Your task to perform on an android device: move an email to a new category in the gmail app Image 0: 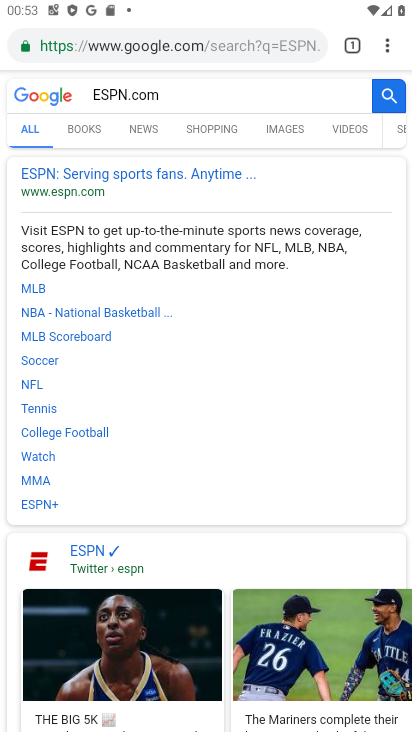
Step 0: press home button
Your task to perform on an android device: move an email to a new category in the gmail app Image 1: 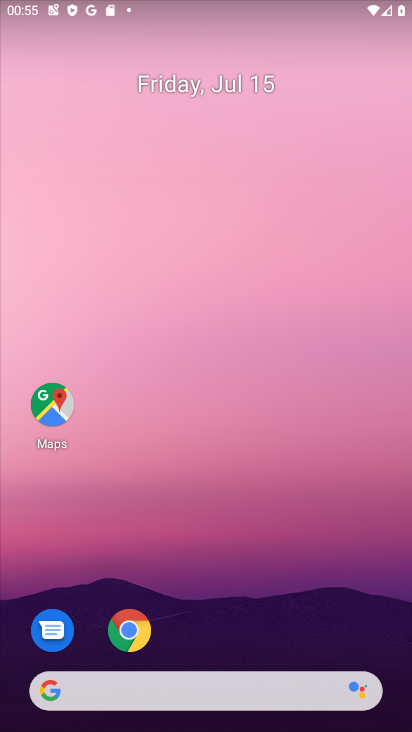
Step 1: drag from (248, 601) to (237, 236)
Your task to perform on an android device: move an email to a new category in the gmail app Image 2: 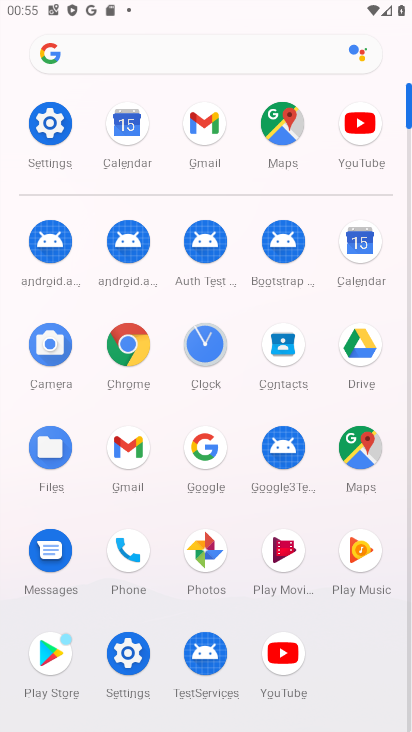
Step 2: click (204, 140)
Your task to perform on an android device: move an email to a new category in the gmail app Image 3: 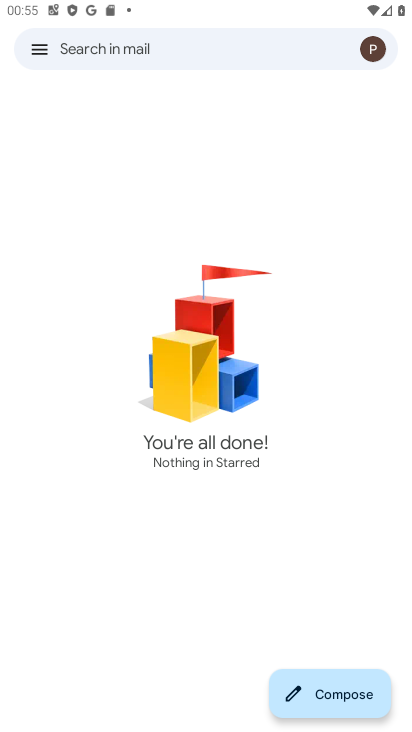
Step 3: click (34, 46)
Your task to perform on an android device: move an email to a new category in the gmail app Image 4: 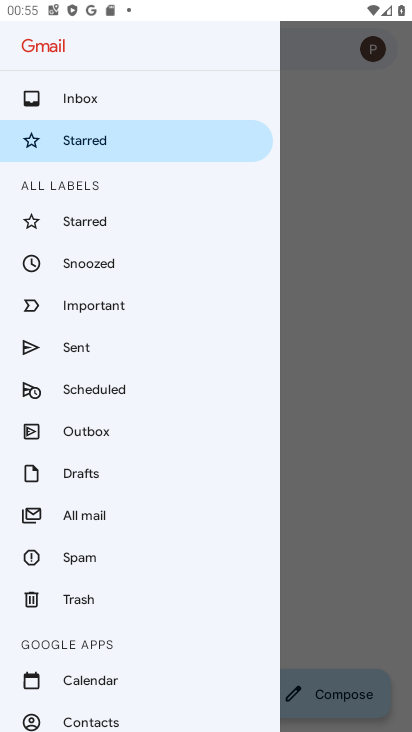
Step 4: task complete